Your task to perform on an android device: Open Wikipedia Image 0: 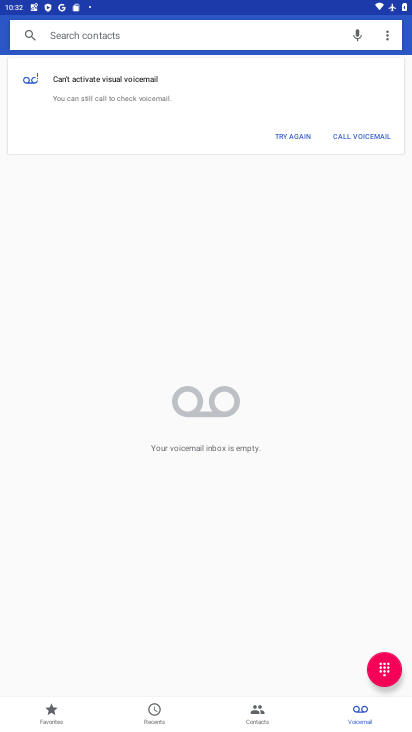
Step 0: press home button
Your task to perform on an android device: Open Wikipedia Image 1: 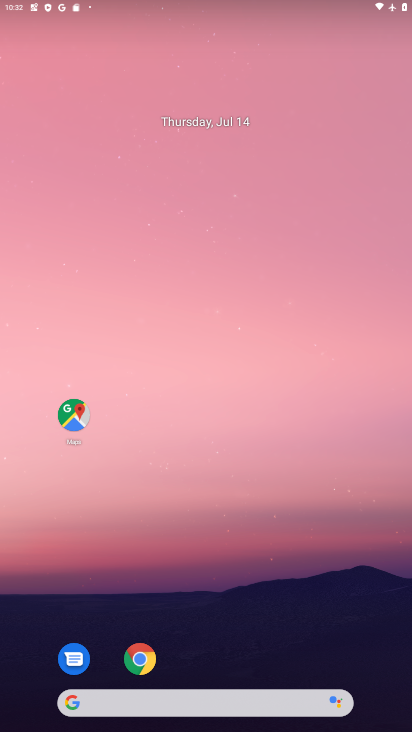
Step 1: drag from (299, 626) to (283, 107)
Your task to perform on an android device: Open Wikipedia Image 2: 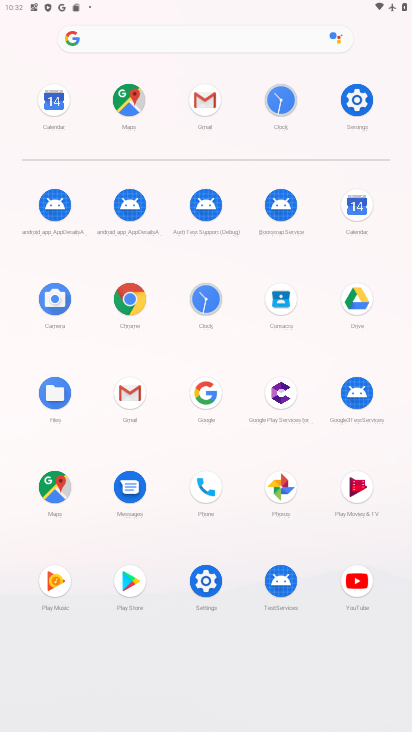
Step 2: click (128, 302)
Your task to perform on an android device: Open Wikipedia Image 3: 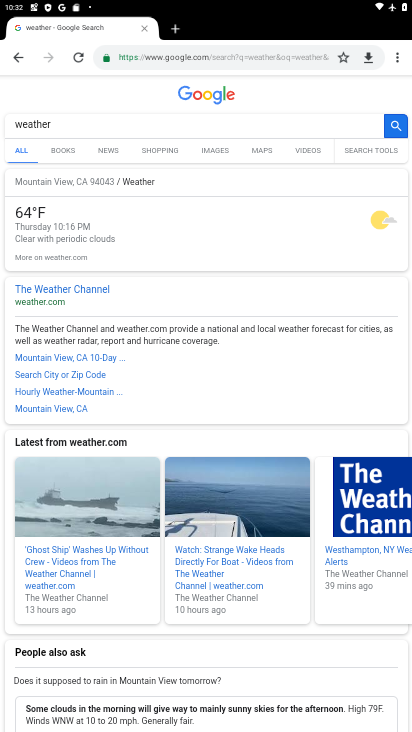
Step 3: click (239, 129)
Your task to perform on an android device: Open Wikipedia Image 4: 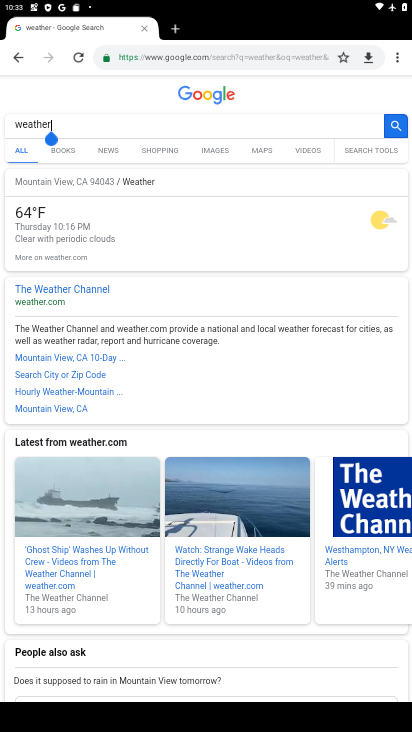
Step 4: click (313, 53)
Your task to perform on an android device: Open Wikipedia Image 5: 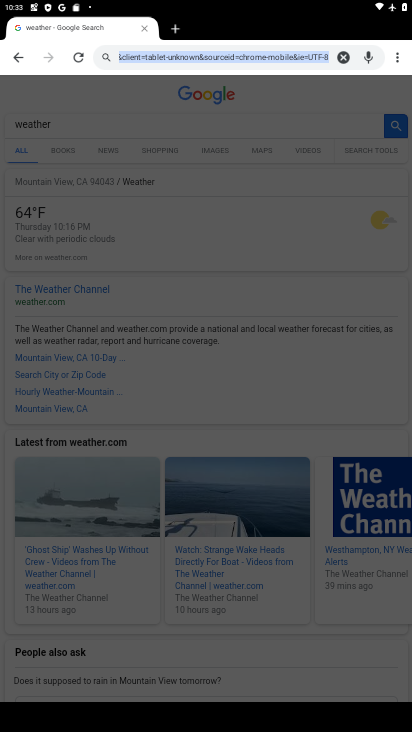
Step 5: type "wikipedia"
Your task to perform on an android device: Open Wikipedia Image 6: 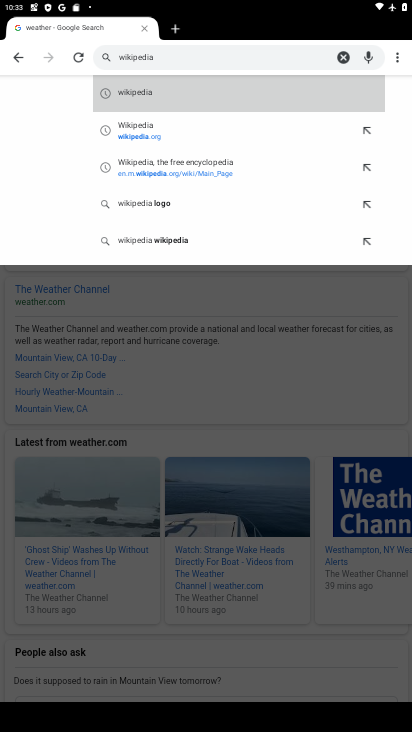
Step 6: click (146, 135)
Your task to perform on an android device: Open Wikipedia Image 7: 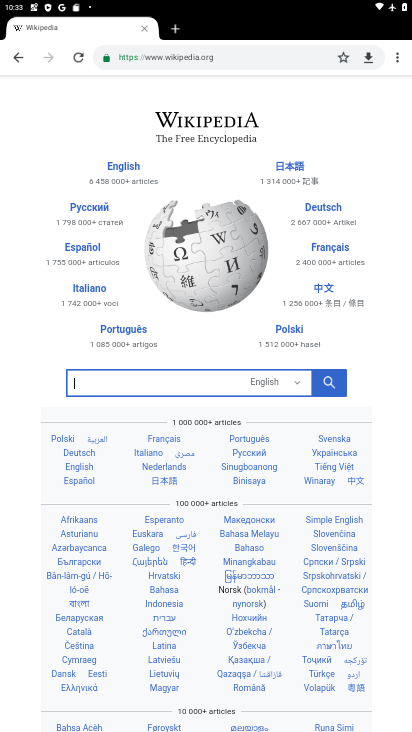
Step 7: task complete